Your task to perform on an android device: Open calendar and show me the second week of next month Image 0: 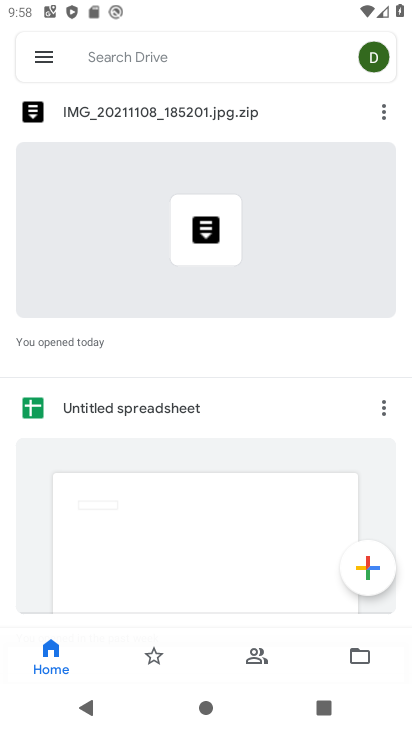
Step 0: press home button
Your task to perform on an android device: Open calendar and show me the second week of next month Image 1: 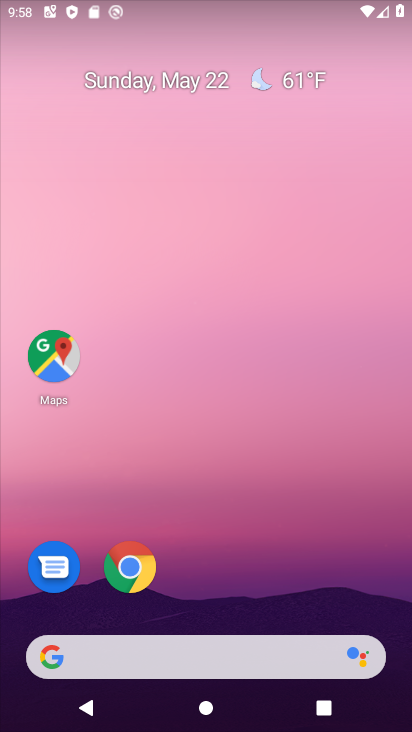
Step 1: drag from (183, 631) to (180, 50)
Your task to perform on an android device: Open calendar and show me the second week of next month Image 2: 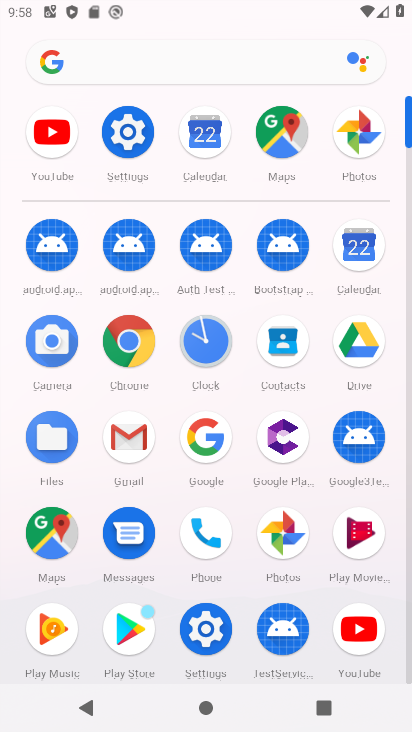
Step 2: click (378, 261)
Your task to perform on an android device: Open calendar and show me the second week of next month Image 3: 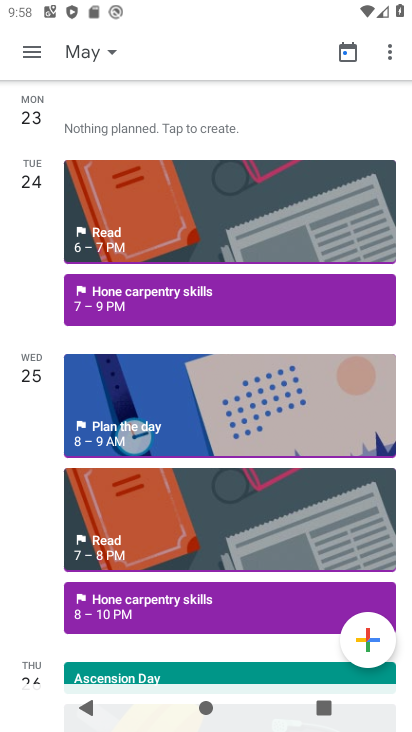
Step 3: click (25, 51)
Your task to perform on an android device: Open calendar and show me the second week of next month Image 4: 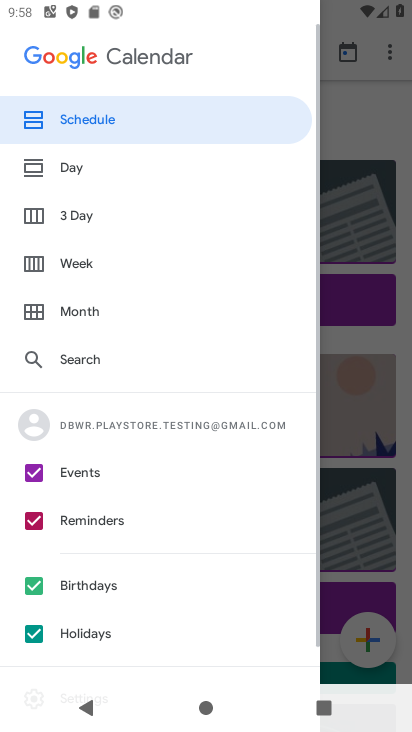
Step 4: drag from (101, 305) to (117, 562)
Your task to perform on an android device: Open calendar and show me the second week of next month Image 5: 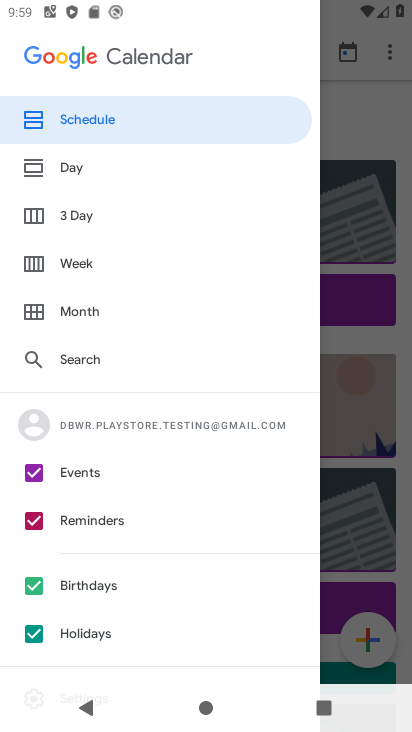
Step 5: click (98, 253)
Your task to perform on an android device: Open calendar and show me the second week of next month Image 6: 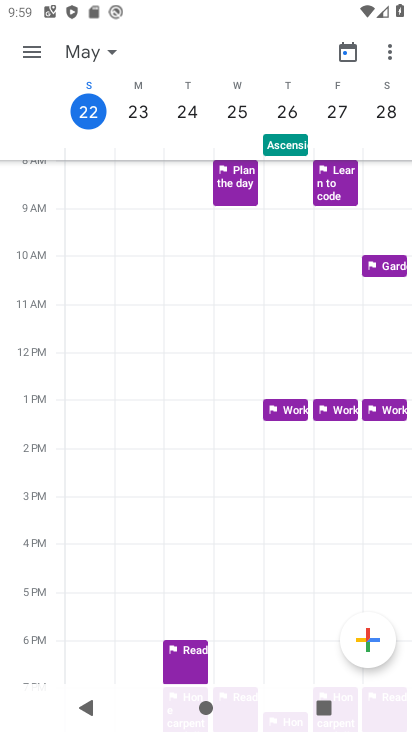
Step 6: task complete